Your task to perform on an android device: Open Yahoo.com Image 0: 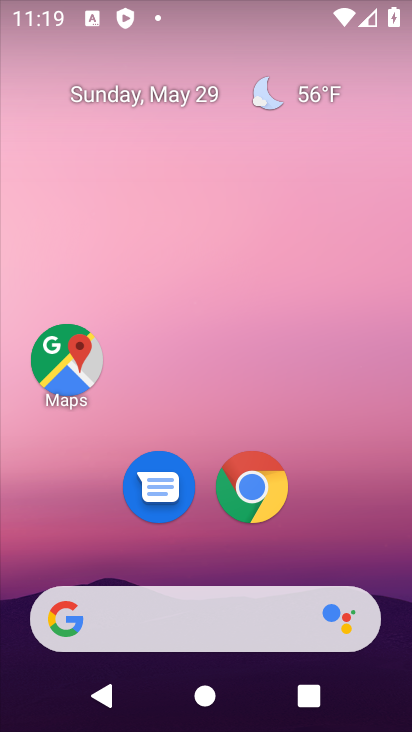
Step 0: drag from (223, 569) to (252, 160)
Your task to perform on an android device: Open Yahoo.com Image 1: 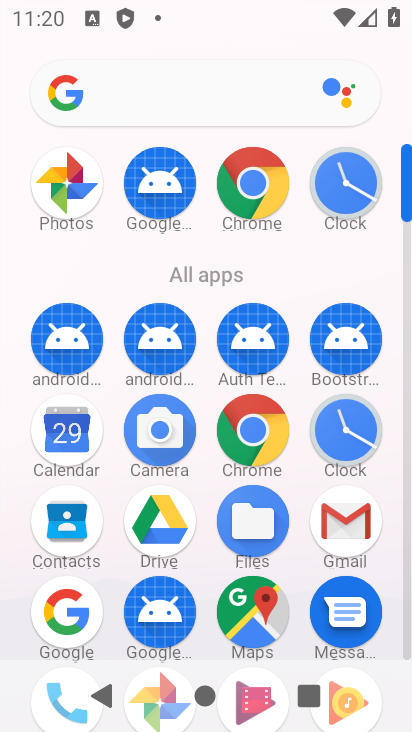
Step 1: click (246, 193)
Your task to perform on an android device: Open Yahoo.com Image 2: 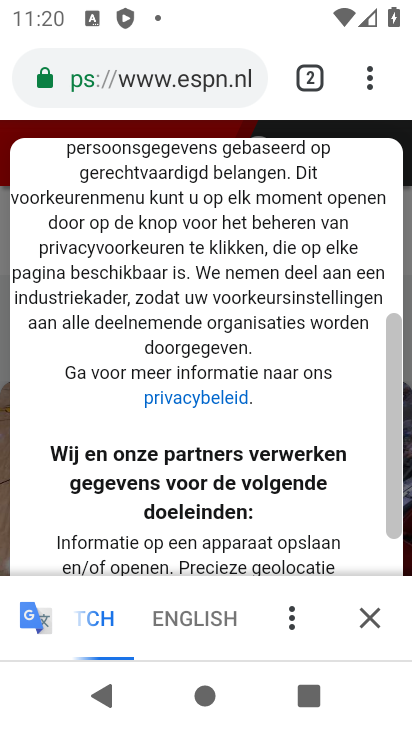
Step 2: click (212, 73)
Your task to perform on an android device: Open Yahoo.com Image 3: 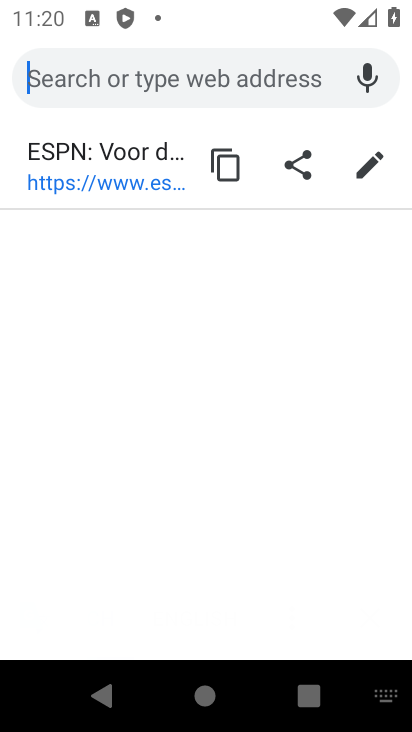
Step 3: type "yahoo"
Your task to perform on an android device: Open Yahoo.com Image 4: 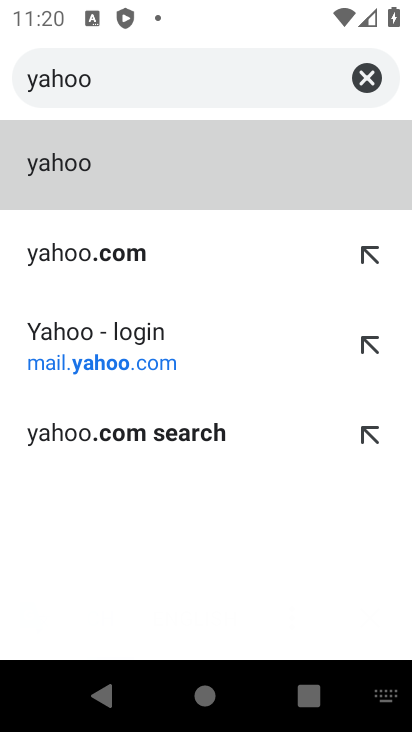
Step 4: click (164, 248)
Your task to perform on an android device: Open Yahoo.com Image 5: 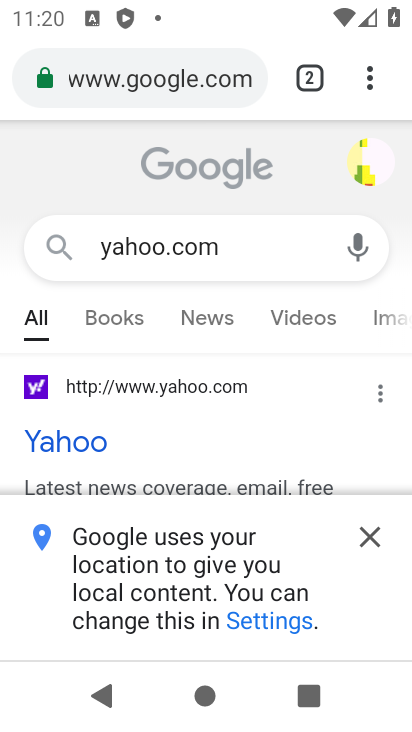
Step 5: press home button
Your task to perform on an android device: Open Yahoo.com Image 6: 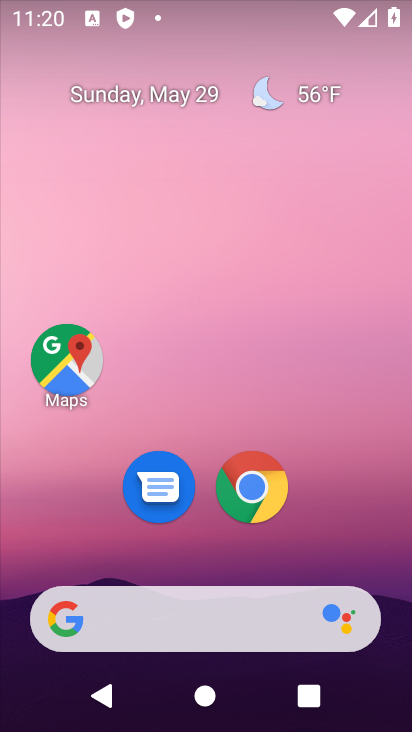
Step 6: click (247, 456)
Your task to perform on an android device: Open Yahoo.com Image 7: 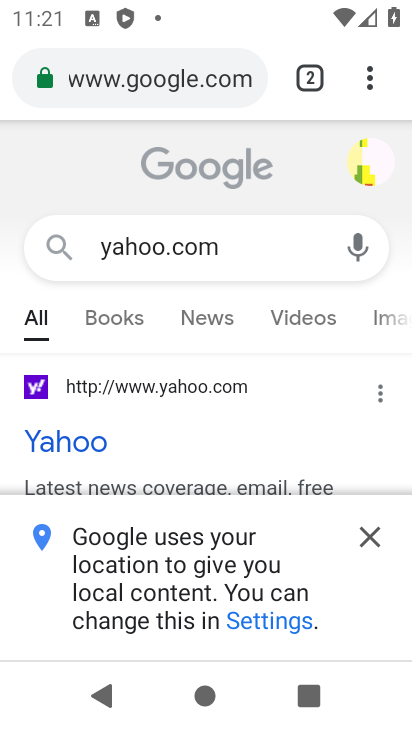
Step 7: click (83, 437)
Your task to perform on an android device: Open Yahoo.com Image 8: 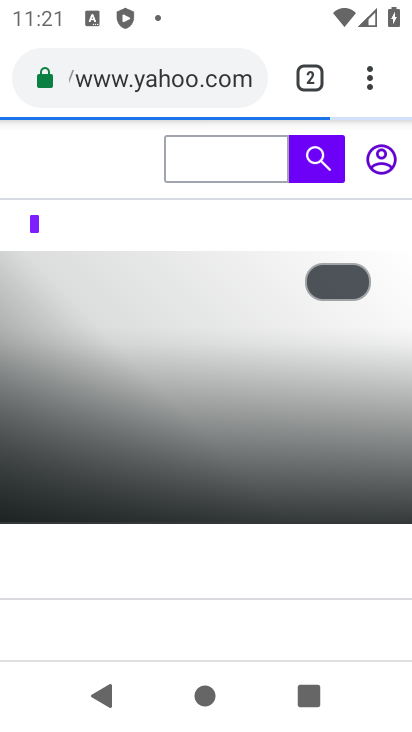
Step 8: task complete